Your task to perform on an android device: Open Google Maps and go to "Timeline" Image 0: 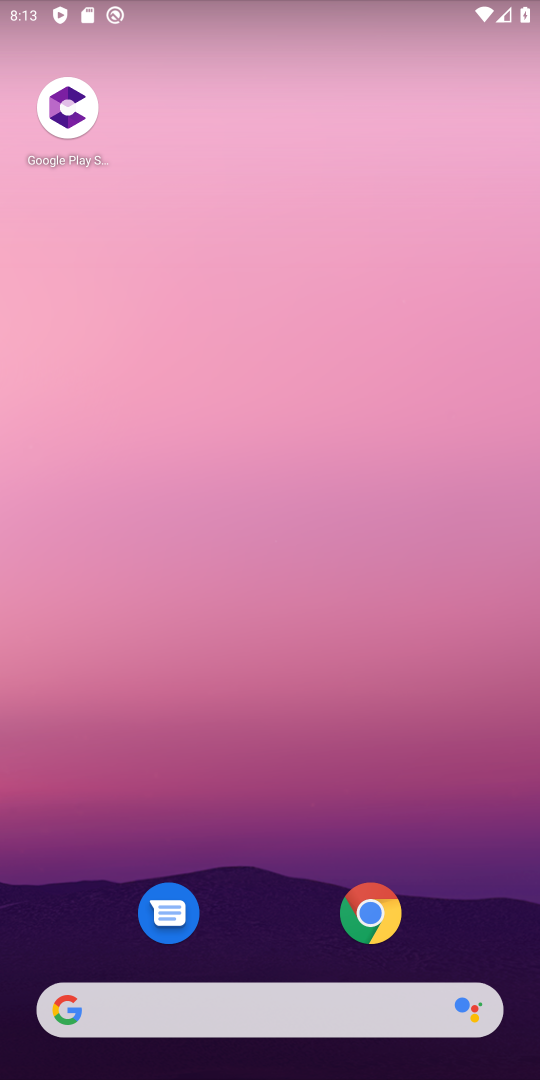
Step 0: click (377, 82)
Your task to perform on an android device: Open Google Maps and go to "Timeline" Image 1: 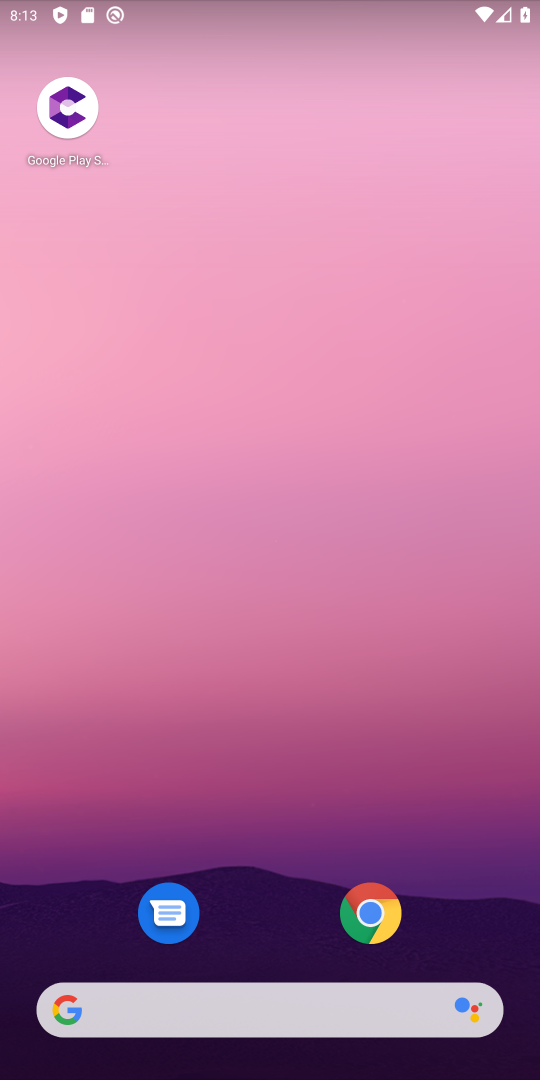
Step 1: drag from (257, 830) to (341, 209)
Your task to perform on an android device: Open Google Maps and go to "Timeline" Image 2: 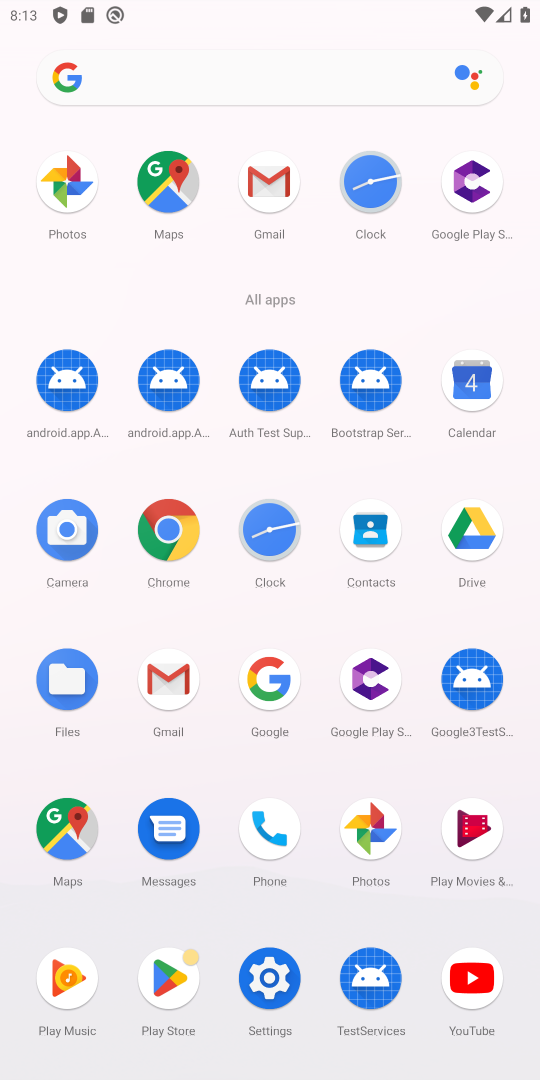
Step 2: click (57, 823)
Your task to perform on an android device: Open Google Maps and go to "Timeline" Image 3: 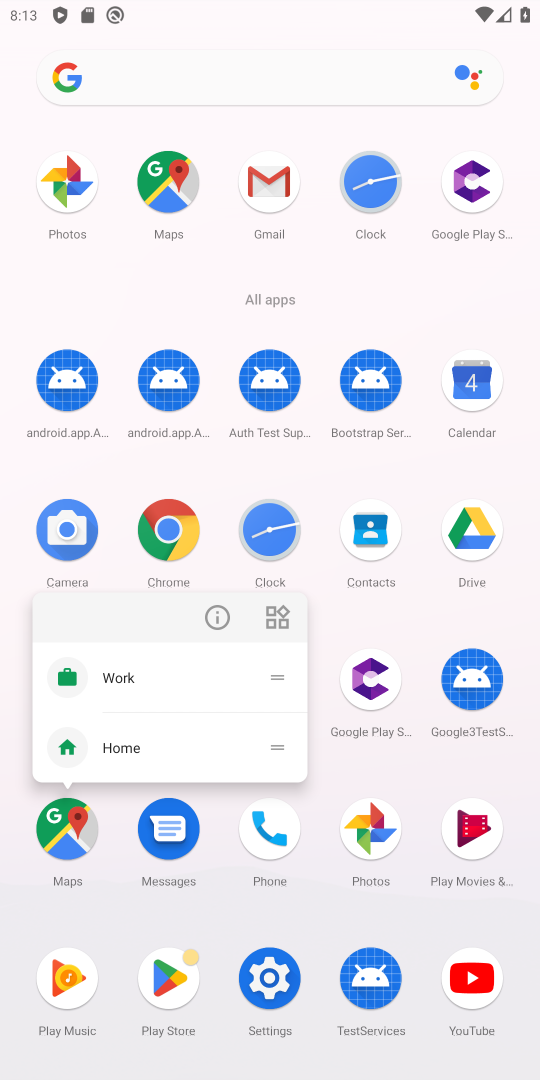
Step 3: click (210, 613)
Your task to perform on an android device: Open Google Maps and go to "Timeline" Image 4: 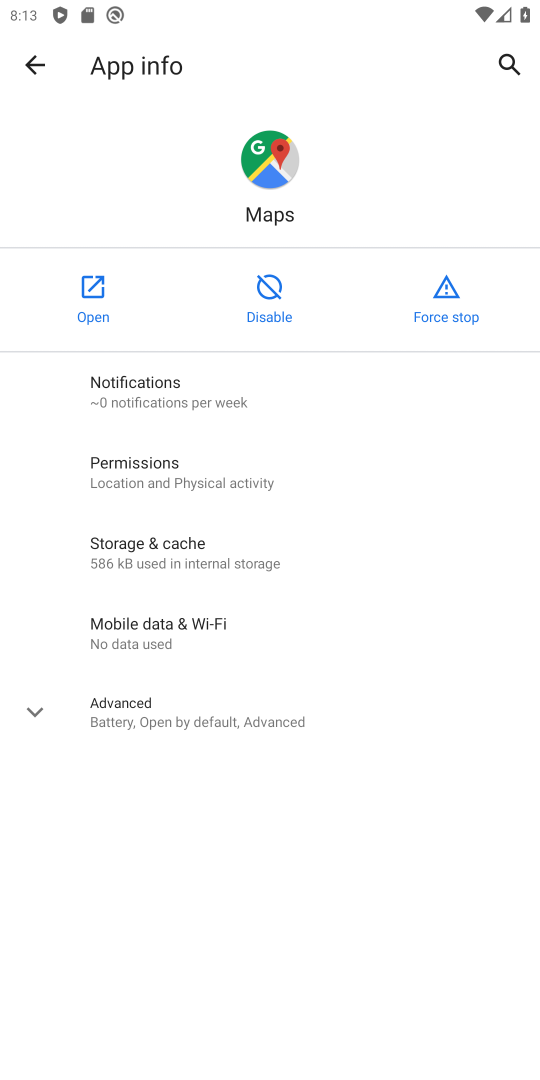
Step 4: click (89, 284)
Your task to perform on an android device: Open Google Maps and go to "Timeline" Image 5: 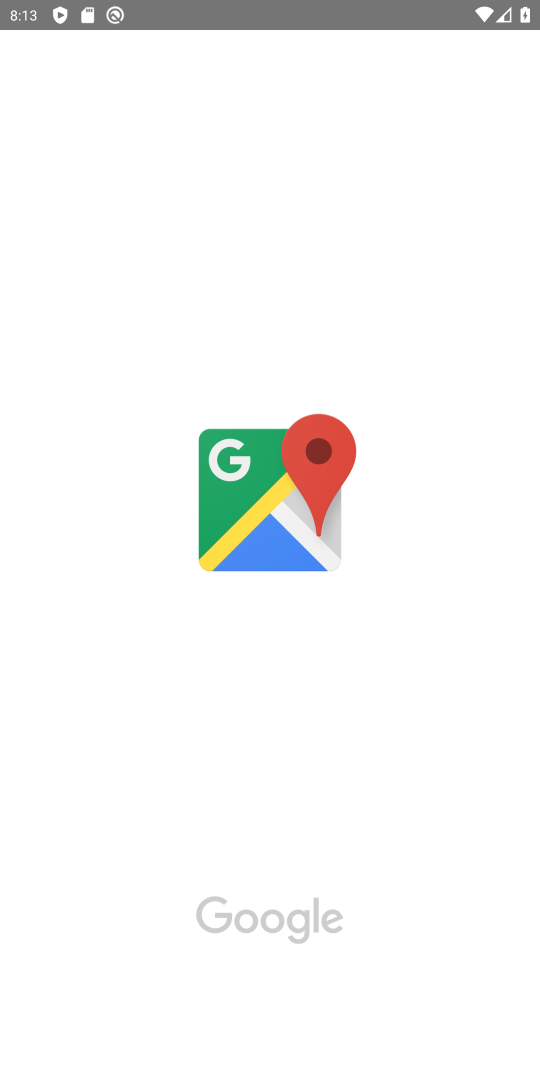
Step 5: drag from (389, 924) to (392, 716)
Your task to perform on an android device: Open Google Maps and go to "Timeline" Image 6: 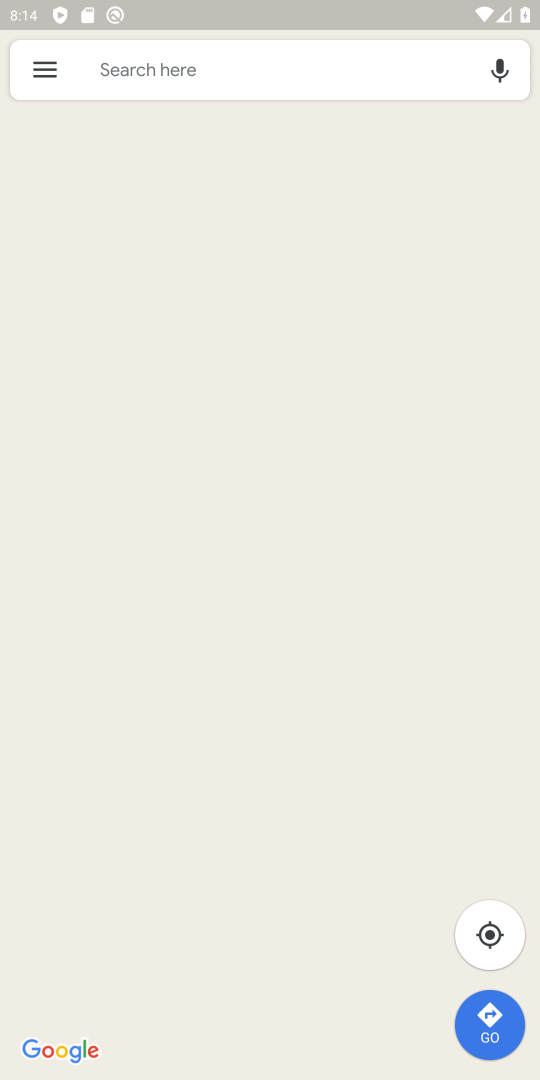
Step 6: click (37, 66)
Your task to perform on an android device: Open Google Maps and go to "Timeline" Image 7: 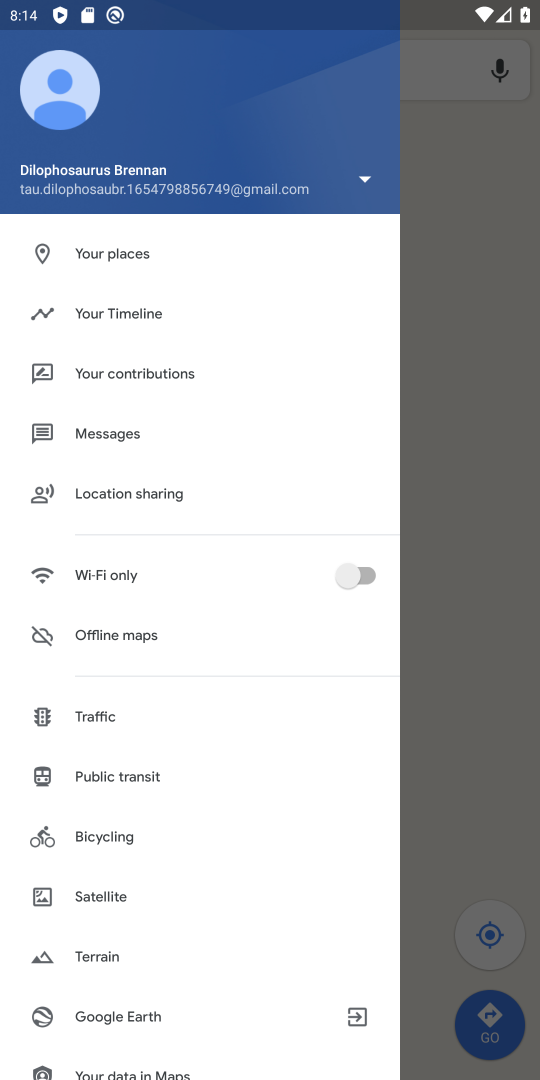
Step 7: click (154, 306)
Your task to perform on an android device: Open Google Maps and go to "Timeline" Image 8: 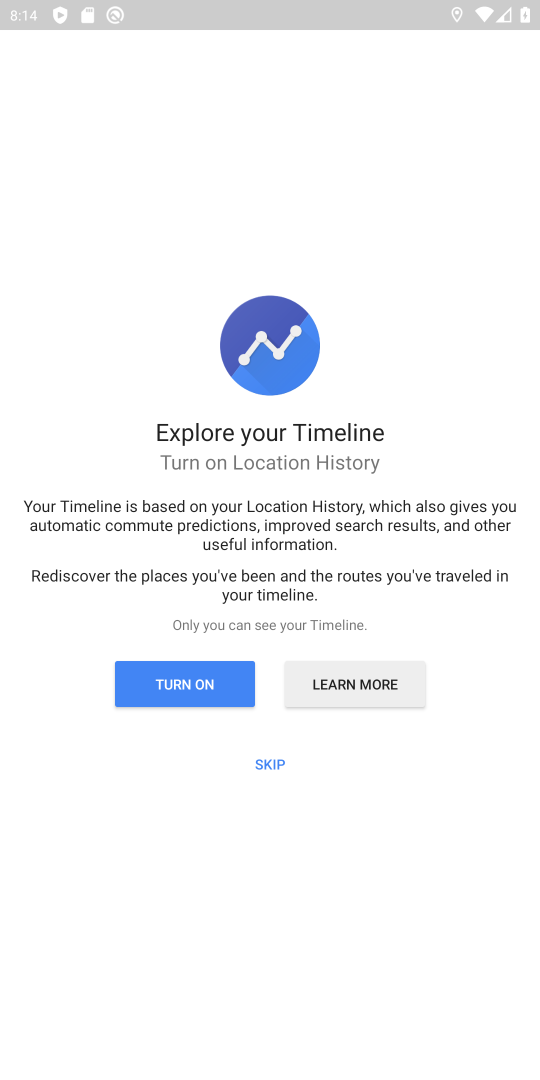
Step 8: task complete